Your task to perform on an android device: empty trash in google photos Image 0: 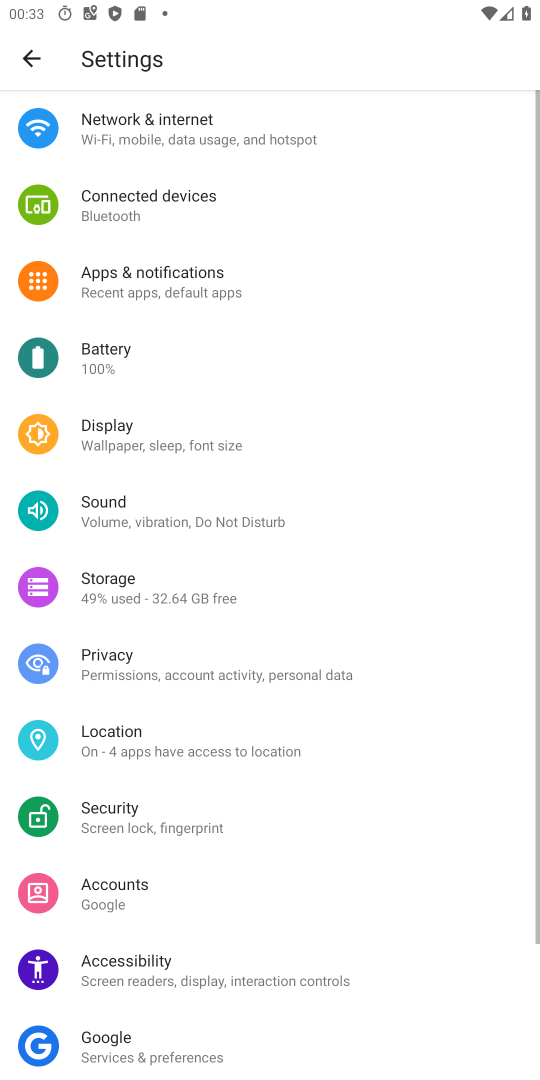
Step 0: press home button
Your task to perform on an android device: empty trash in google photos Image 1: 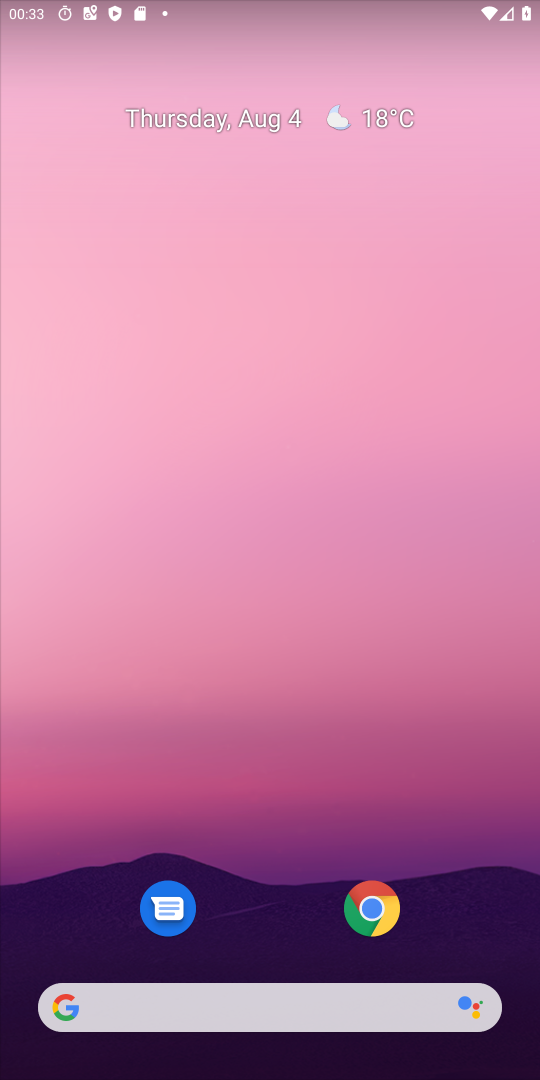
Step 1: drag from (361, 1029) to (313, 297)
Your task to perform on an android device: empty trash in google photos Image 2: 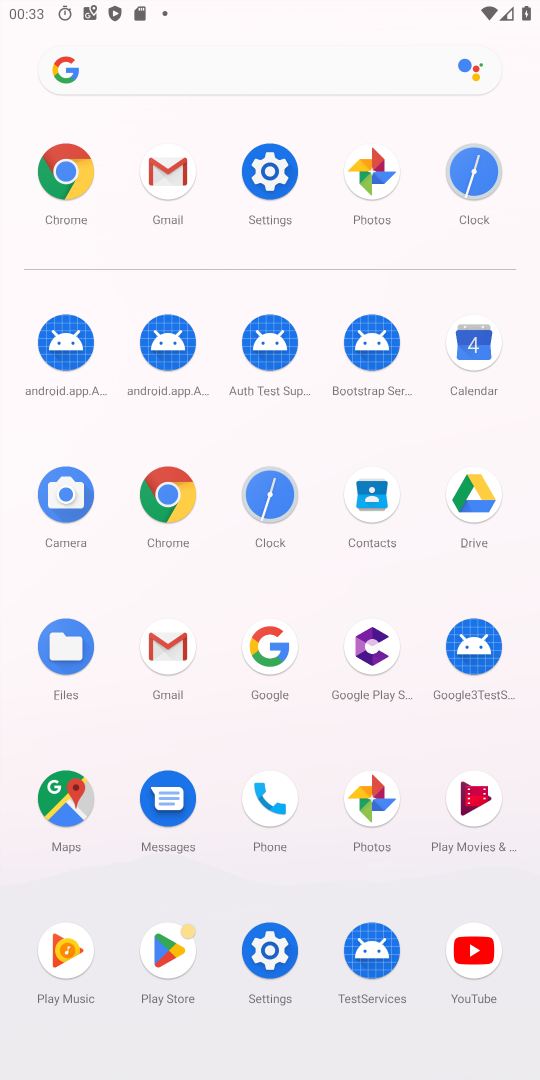
Step 2: click (359, 818)
Your task to perform on an android device: empty trash in google photos Image 3: 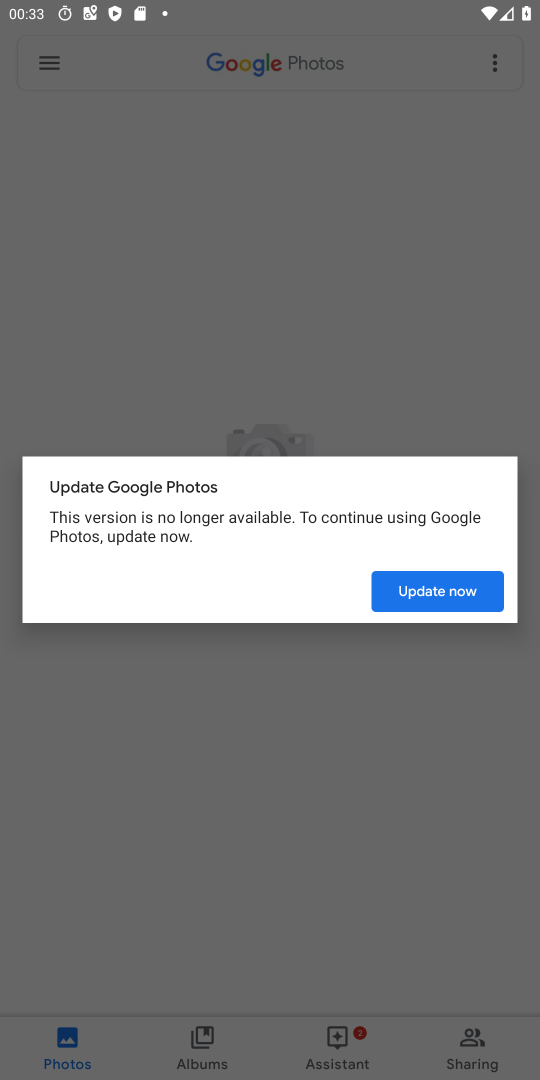
Step 3: click (399, 596)
Your task to perform on an android device: empty trash in google photos Image 4: 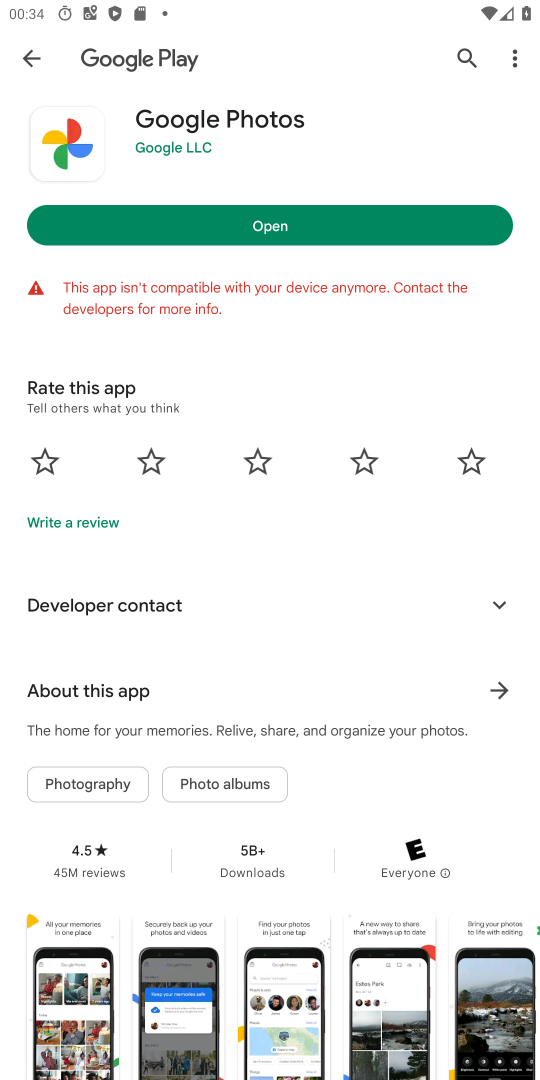
Step 4: click (232, 225)
Your task to perform on an android device: empty trash in google photos Image 5: 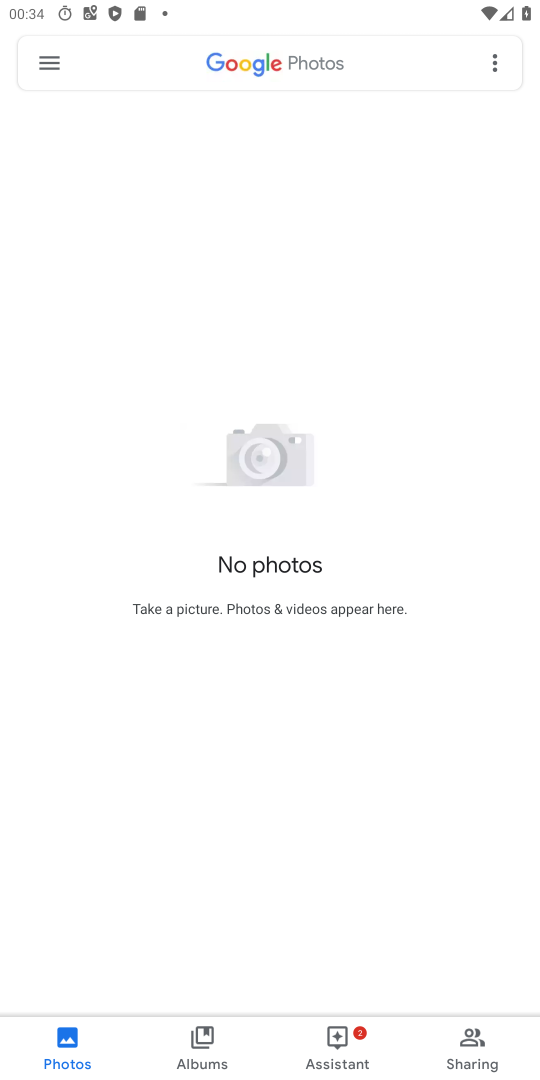
Step 5: click (58, 40)
Your task to perform on an android device: empty trash in google photos Image 6: 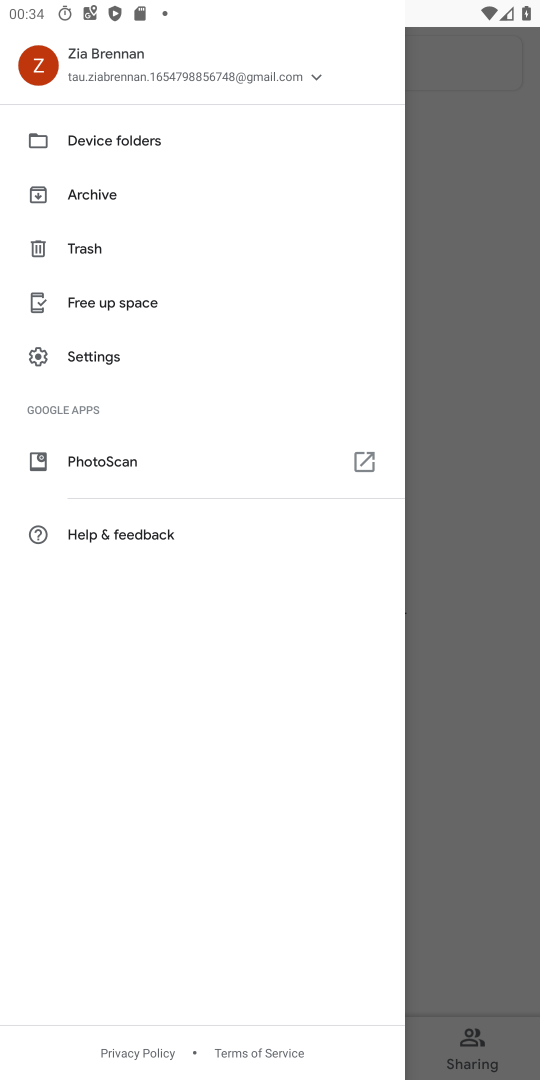
Step 6: click (113, 240)
Your task to perform on an android device: empty trash in google photos Image 7: 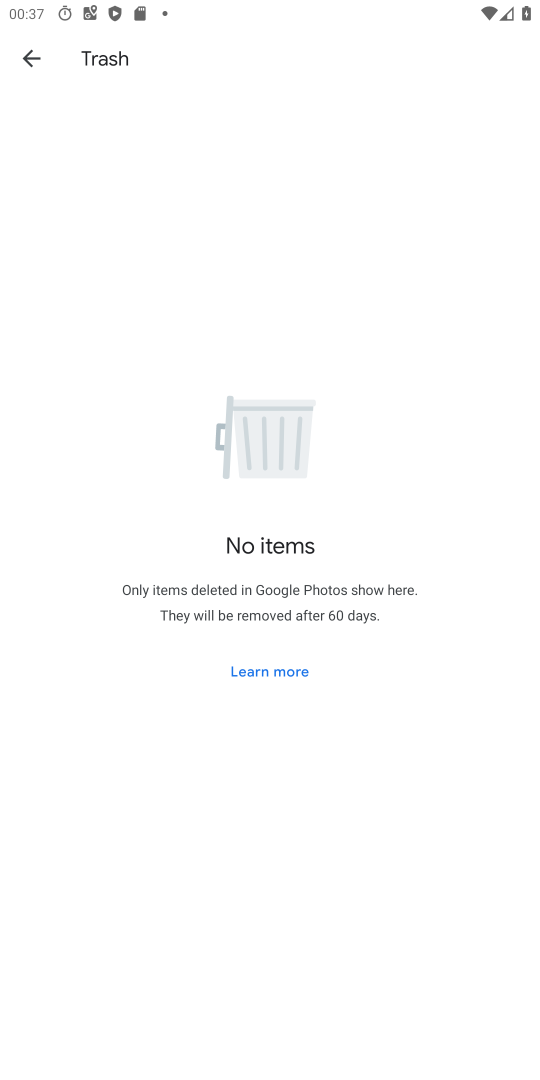
Step 7: task complete